Your task to perform on an android device: Show me recent news Image 0: 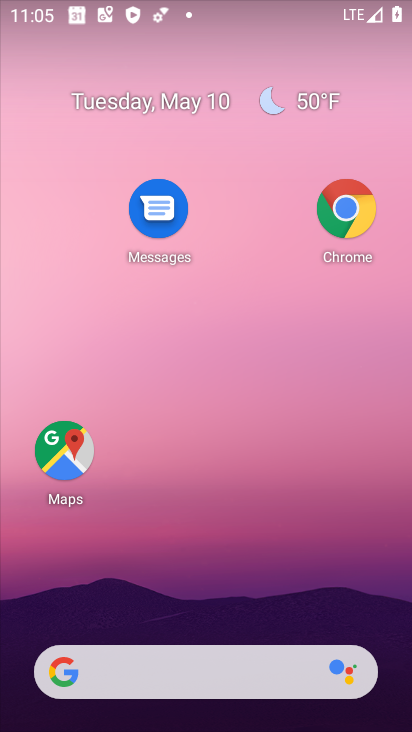
Step 0: click (215, 672)
Your task to perform on an android device: Show me recent news Image 1: 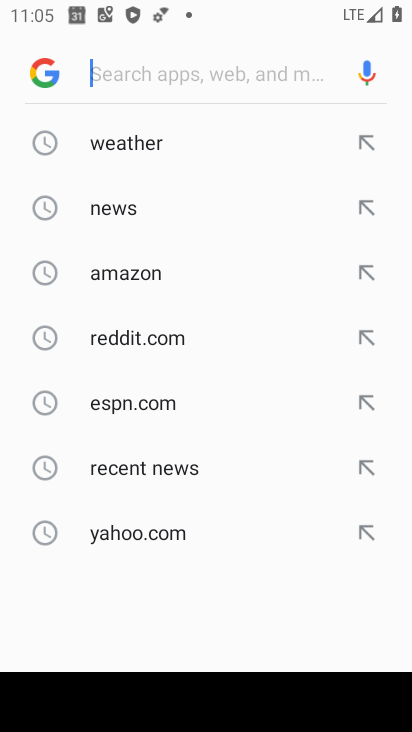
Step 1: click (122, 203)
Your task to perform on an android device: Show me recent news Image 2: 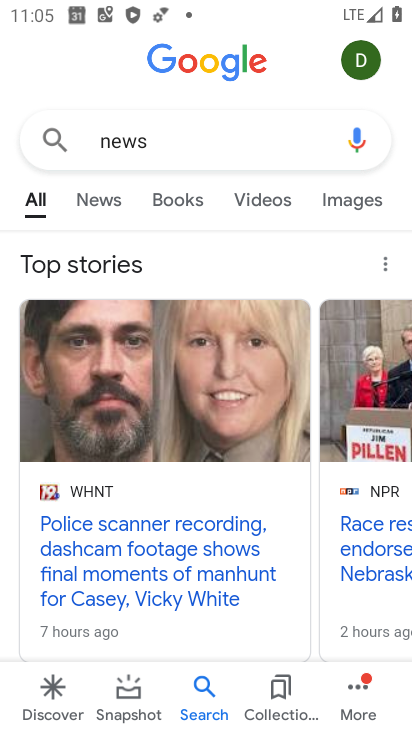
Step 2: click (81, 208)
Your task to perform on an android device: Show me recent news Image 3: 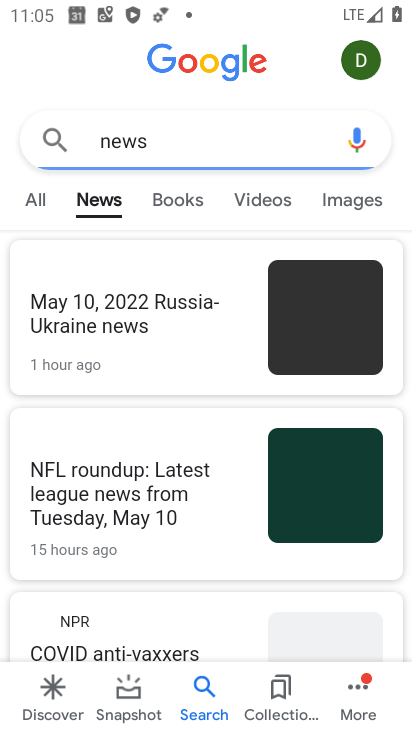
Step 3: task complete